Your task to perform on an android device: change notifications settings Image 0: 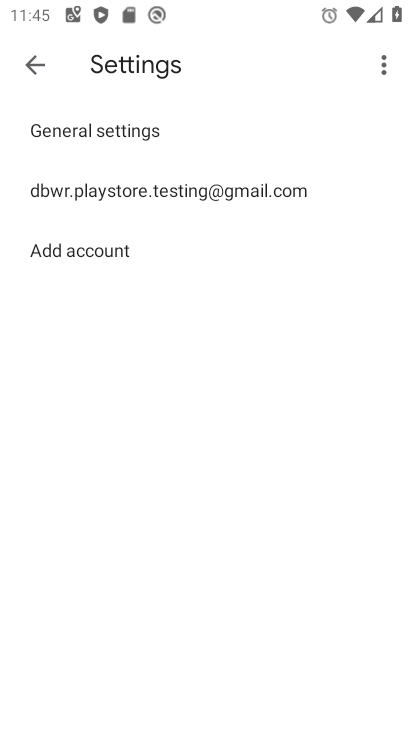
Step 0: press home button
Your task to perform on an android device: change notifications settings Image 1: 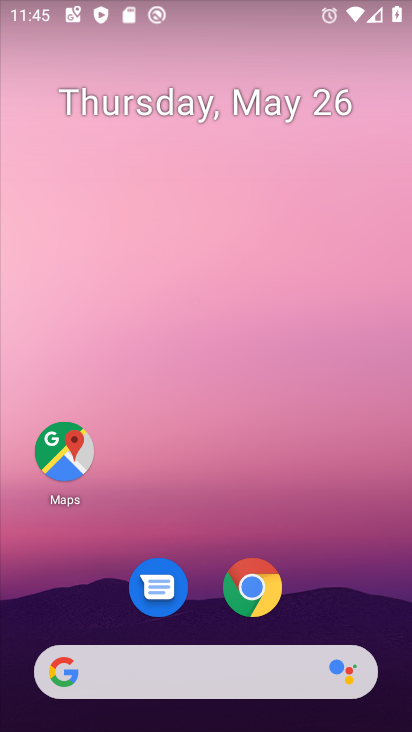
Step 1: drag from (241, 677) to (335, 181)
Your task to perform on an android device: change notifications settings Image 2: 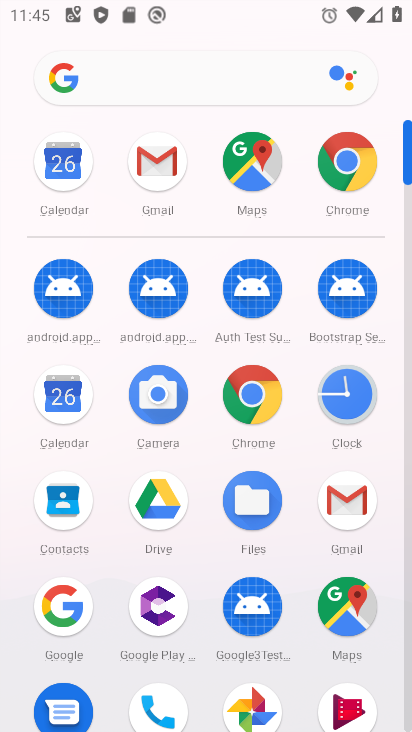
Step 2: drag from (127, 531) to (164, 320)
Your task to perform on an android device: change notifications settings Image 3: 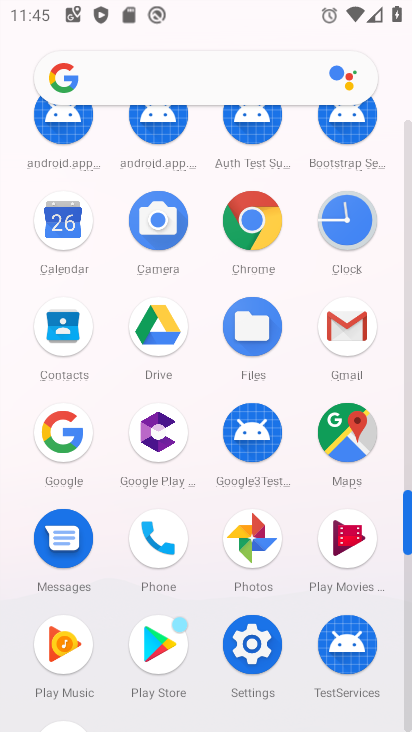
Step 3: click (256, 631)
Your task to perform on an android device: change notifications settings Image 4: 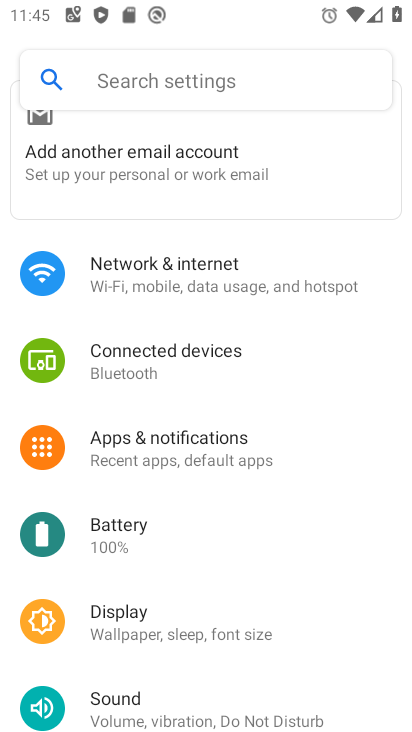
Step 4: click (190, 85)
Your task to perform on an android device: change notifications settings Image 5: 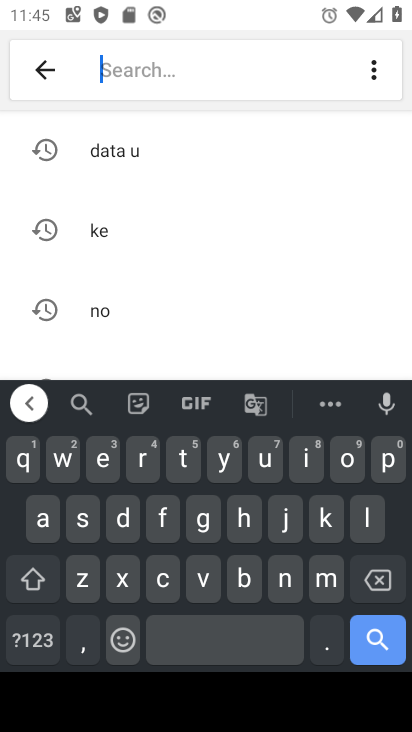
Step 5: click (286, 577)
Your task to perform on an android device: change notifications settings Image 6: 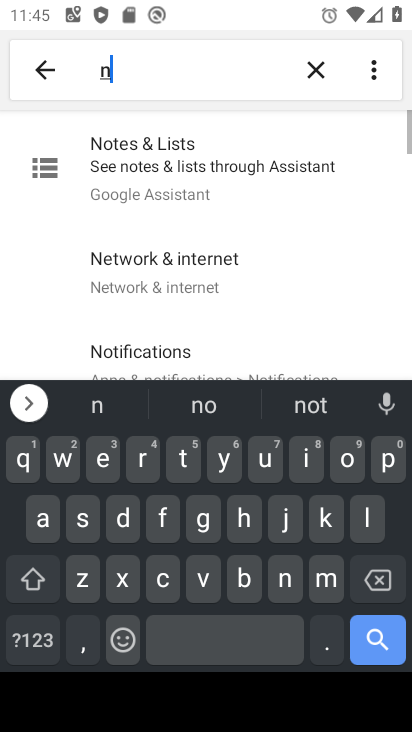
Step 6: click (346, 463)
Your task to perform on an android device: change notifications settings Image 7: 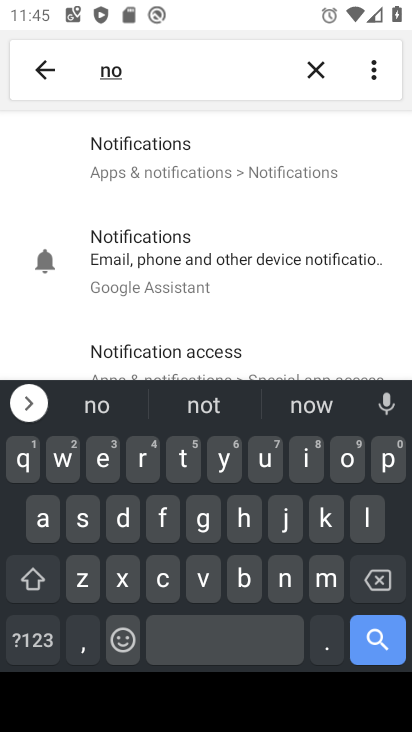
Step 7: click (175, 139)
Your task to perform on an android device: change notifications settings Image 8: 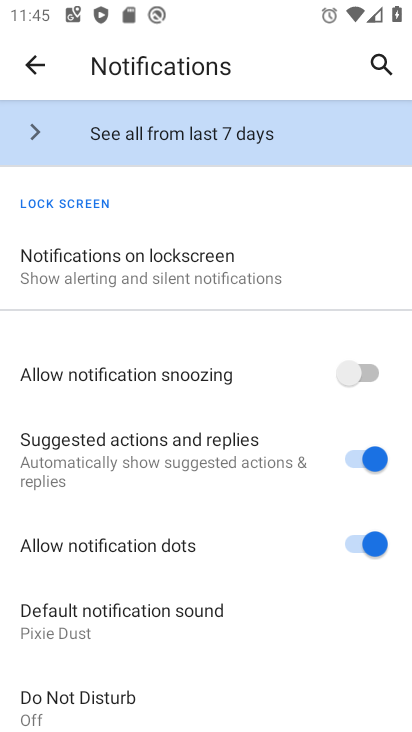
Step 8: click (126, 265)
Your task to perform on an android device: change notifications settings Image 9: 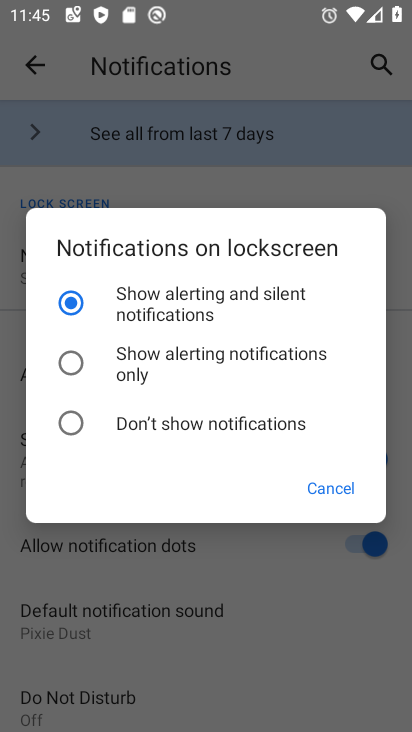
Step 9: click (172, 347)
Your task to perform on an android device: change notifications settings Image 10: 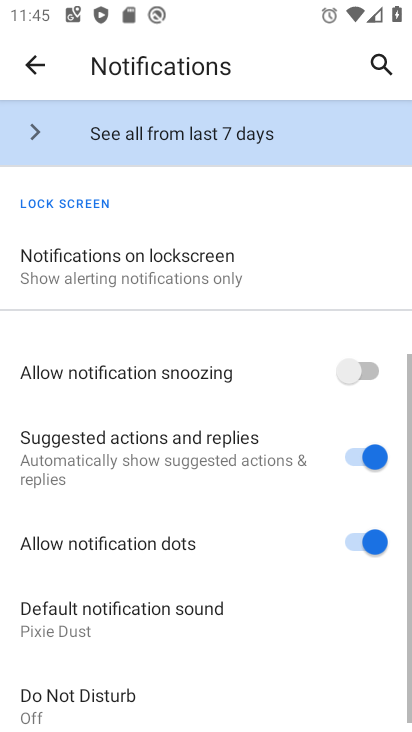
Step 10: task complete